Your task to perform on an android device: Go to Amazon Image 0: 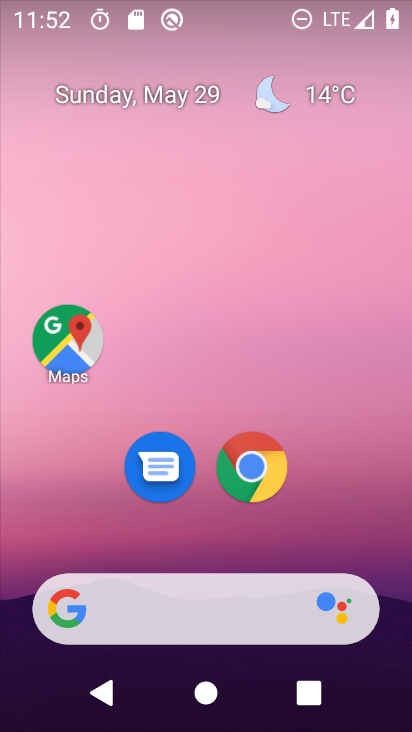
Step 0: click (241, 472)
Your task to perform on an android device: Go to Amazon Image 1: 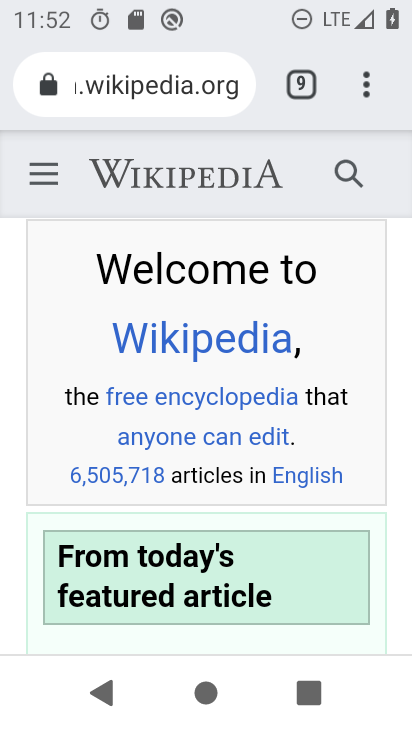
Step 1: click (294, 89)
Your task to perform on an android device: Go to Amazon Image 2: 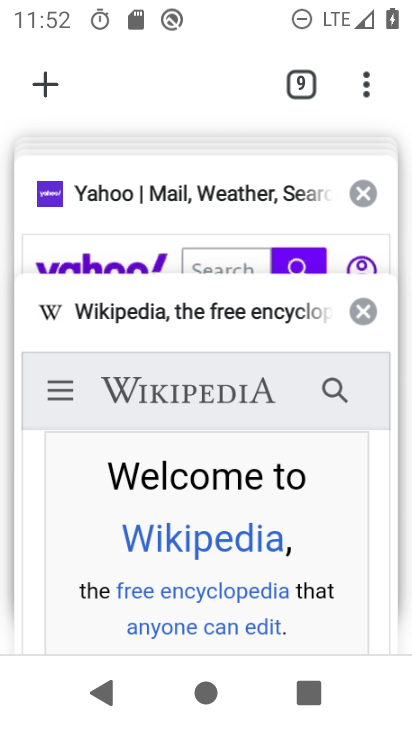
Step 2: drag from (185, 334) to (206, 523)
Your task to perform on an android device: Go to Amazon Image 3: 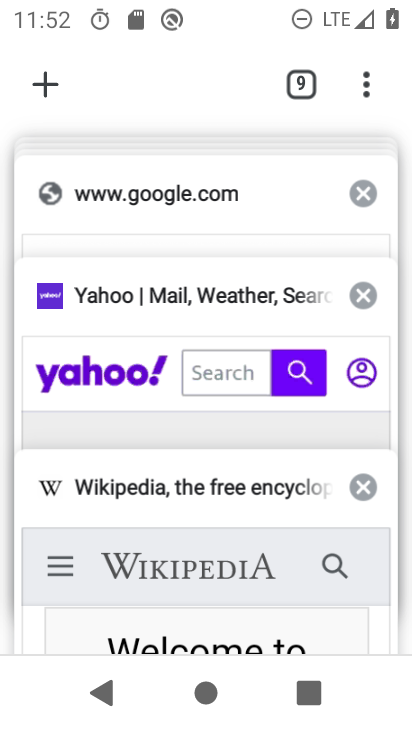
Step 3: drag from (187, 237) to (202, 448)
Your task to perform on an android device: Go to Amazon Image 4: 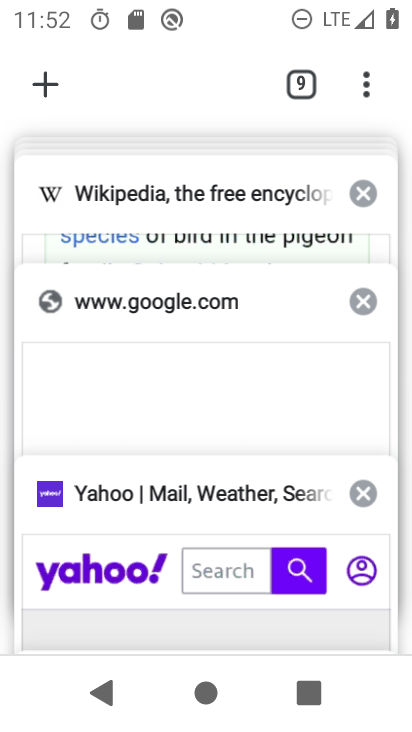
Step 4: drag from (190, 373) to (196, 433)
Your task to perform on an android device: Go to Amazon Image 5: 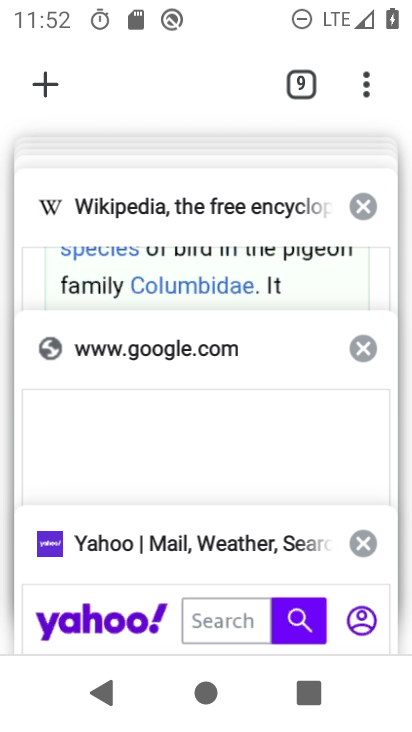
Step 5: drag from (178, 236) to (184, 422)
Your task to perform on an android device: Go to Amazon Image 6: 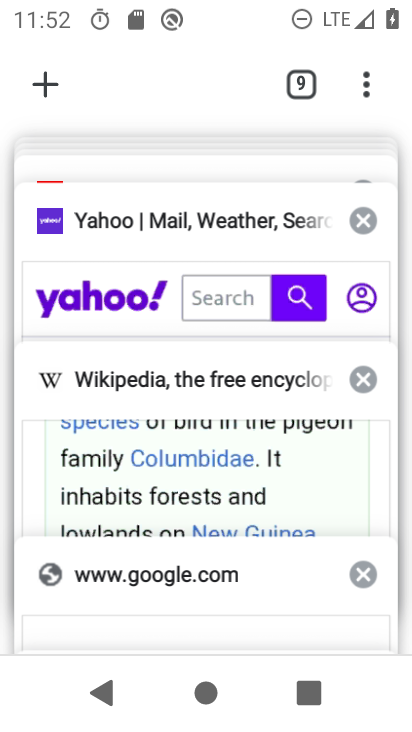
Step 6: drag from (148, 231) to (170, 416)
Your task to perform on an android device: Go to Amazon Image 7: 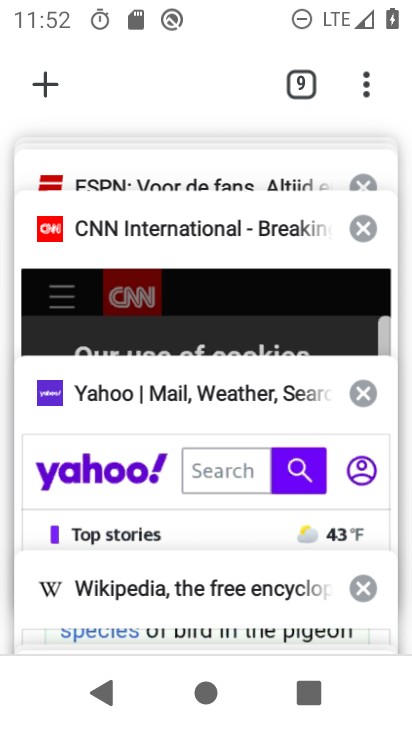
Step 7: drag from (163, 218) to (155, 369)
Your task to perform on an android device: Go to Amazon Image 8: 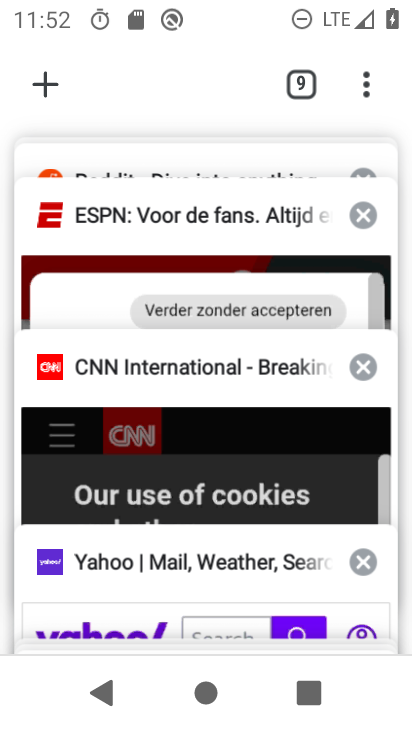
Step 8: drag from (146, 235) to (169, 431)
Your task to perform on an android device: Go to Amazon Image 9: 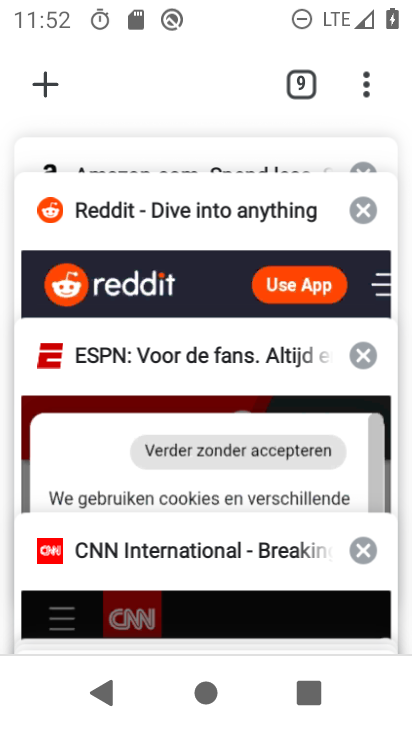
Step 9: drag from (124, 203) to (124, 321)
Your task to perform on an android device: Go to Amazon Image 10: 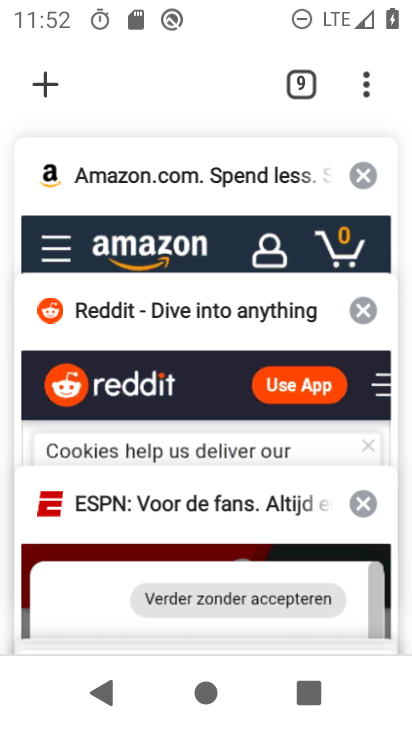
Step 10: drag from (127, 202) to (155, 419)
Your task to perform on an android device: Go to Amazon Image 11: 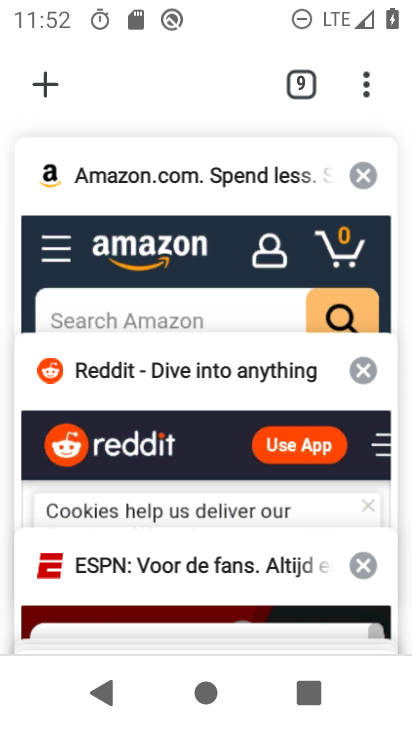
Step 11: click (131, 236)
Your task to perform on an android device: Go to Amazon Image 12: 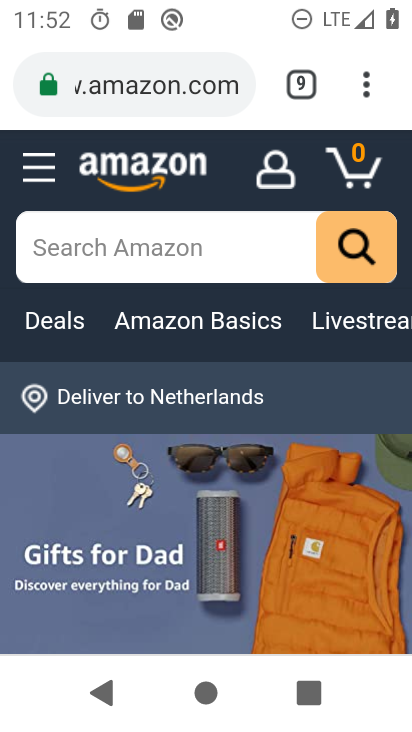
Step 12: task complete